Your task to perform on an android device: add a contact in the contacts app Image 0: 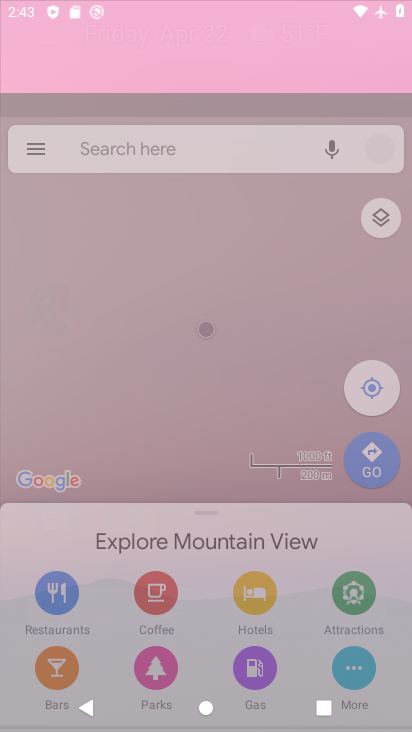
Step 0: press home button
Your task to perform on an android device: add a contact in the contacts app Image 1: 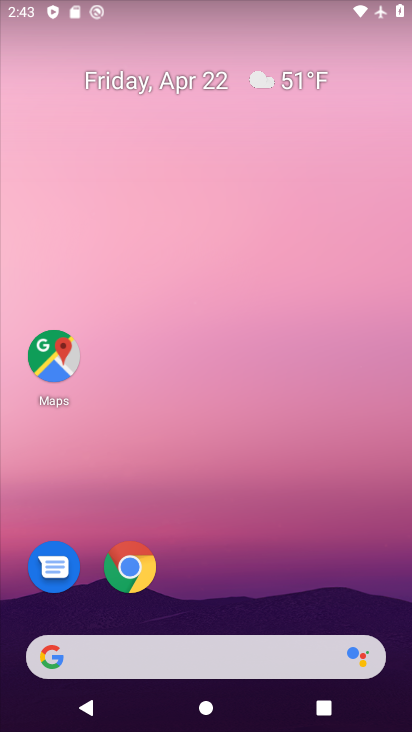
Step 1: drag from (280, 686) to (229, 52)
Your task to perform on an android device: add a contact in the contacts app Image 2: 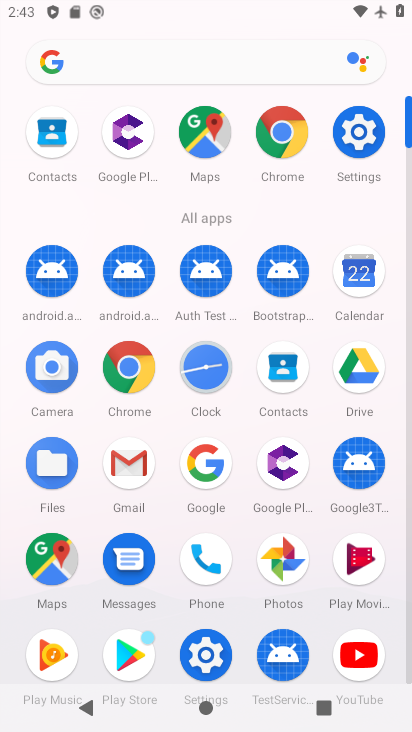
Step 2: click (285, 370)
Your task to perform on an android device: add a contact in the contacts app Image 3: 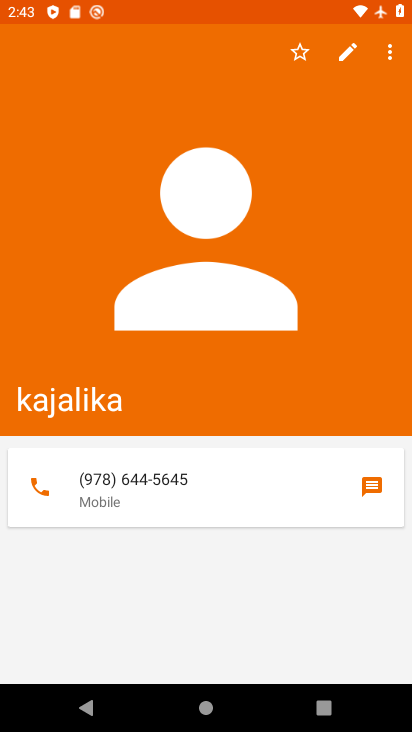
Step 3: press home button
Your task to perform on an android device: add a contact in the contacts app Image 4: 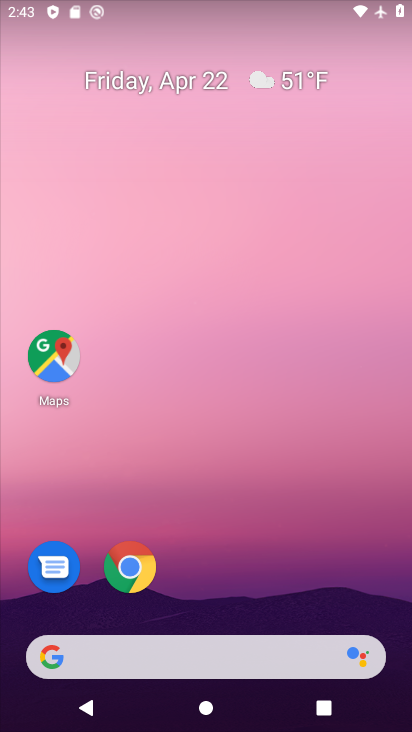
Step 4: drag from (283, 713) to (235, 87)
Your task to perform on an android device: add a contact in the contacts app Image 5: 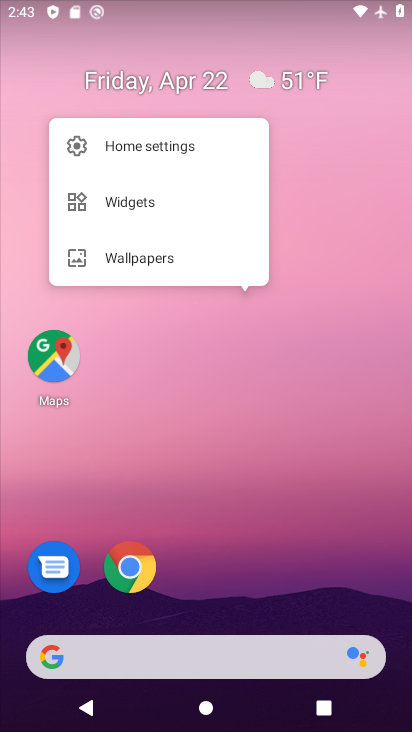
Step 5: drag from (219, 387) to (179, 211)
Your task to perform on an android device: add a contact in the contacts app Image 6: 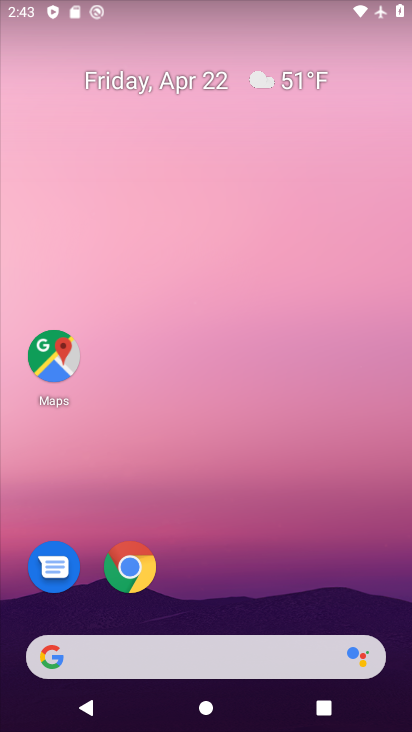
Step 6: drag from (233, 494) to (168, 152)
Your task to perform on an android device: add a contact in the contacts app Image 7: 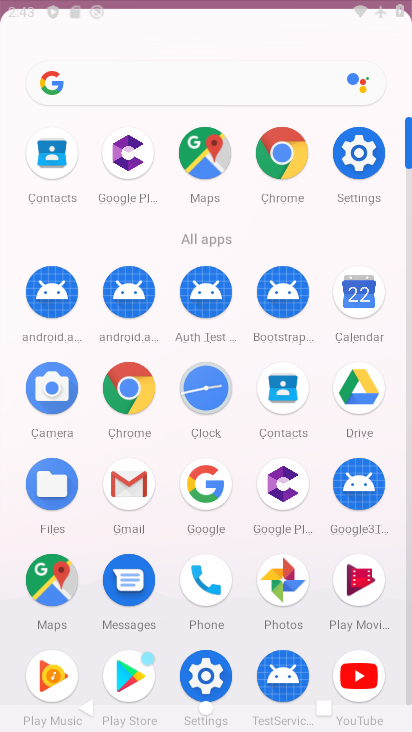
Step 7: drag from (266, 623) to (163, 124)
Your task to perform on an android device: add a contact in the contacts app Image 8: 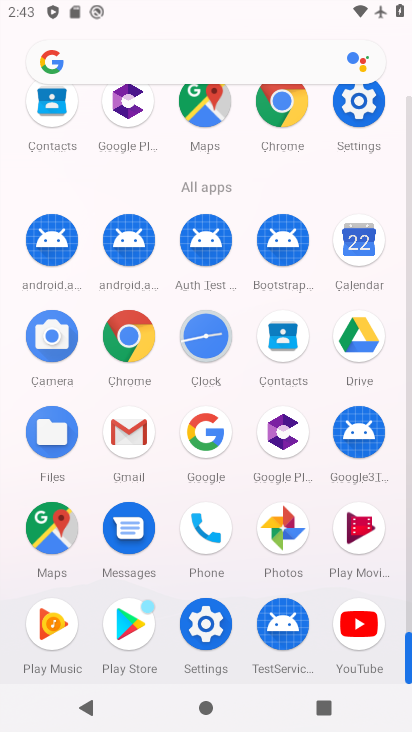
Step 8: click (285, 334)
Your task to perform on an android device: add a contact in the contacts app Image 9: 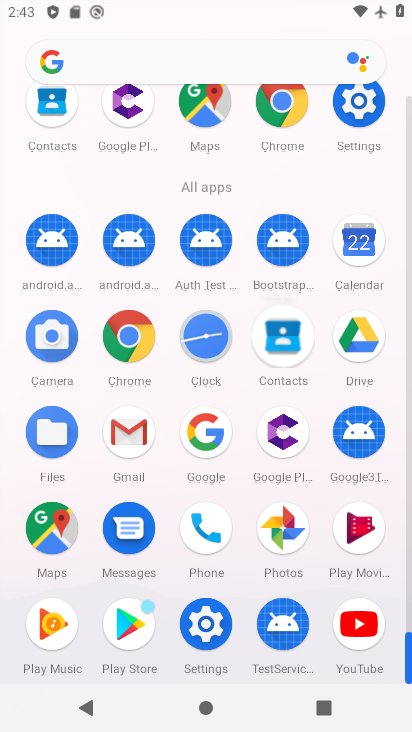
Step 9: click (285, 334)
Your task to perform on an android device: add a contact in the contacts app Image 10: 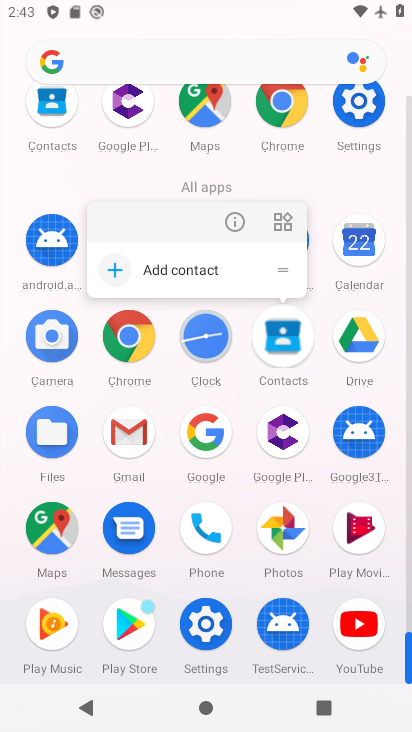
Step 10: click (285, 334)
Your task to perform on an android device: add a contact in the contacts app Image 11: 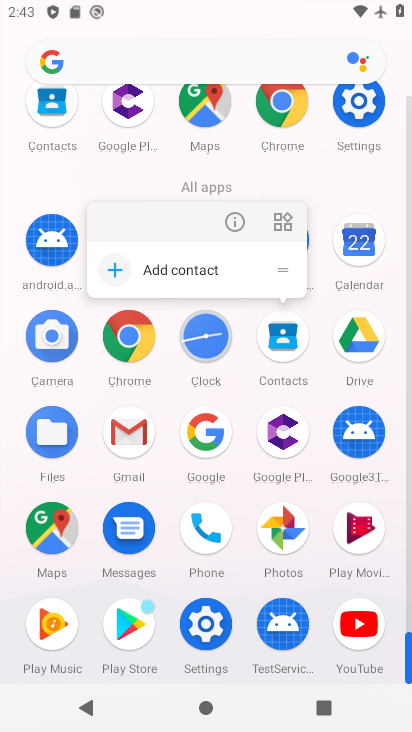
Step 11: click (282, 334)
Your task to perform on an android device: add a contact in the contacts app Image 12: 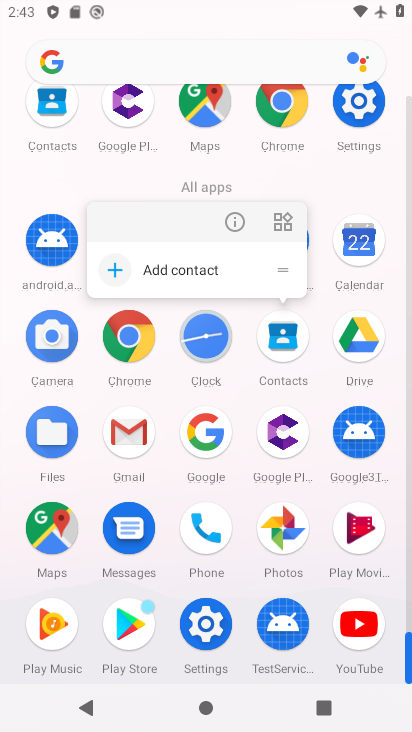
Step 12: click (285, 358)
Your task to perform on an android device: add a contact in the contacts app Image 13: 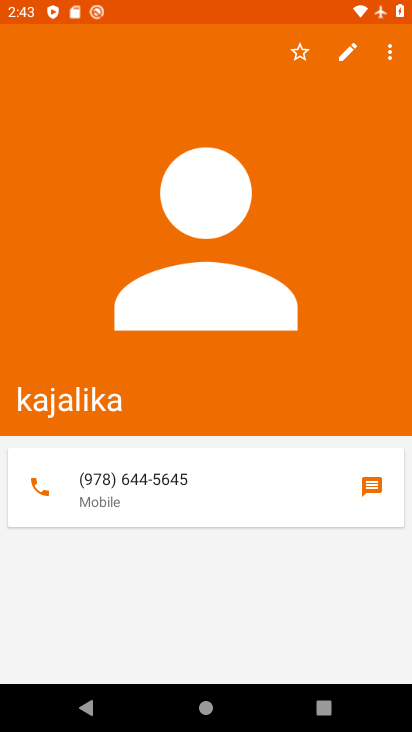
Step 13: click (386, 52)
Your task to perform on an android device: add a contact in the contacts app Image 14: 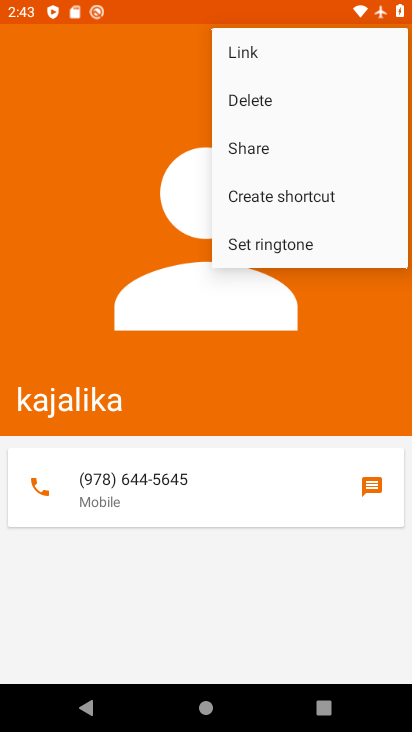
Step 14: click (105, 262)
Your task to perform on an android device: add a contact in the contacts app Image 15: 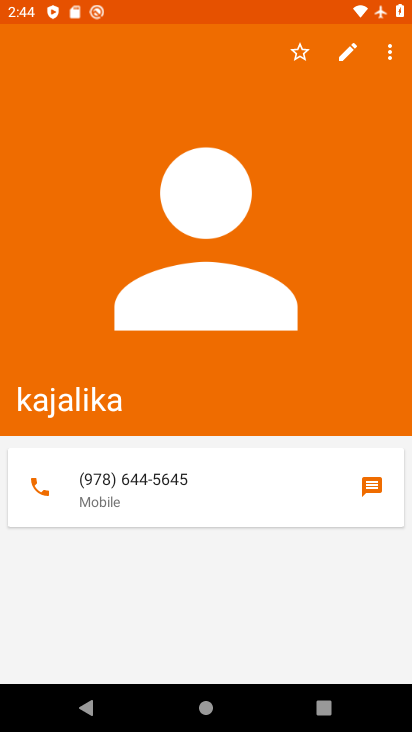
Step 15: press back button
Your task to perform on an android device: add a contact in the contacts app Image 16: 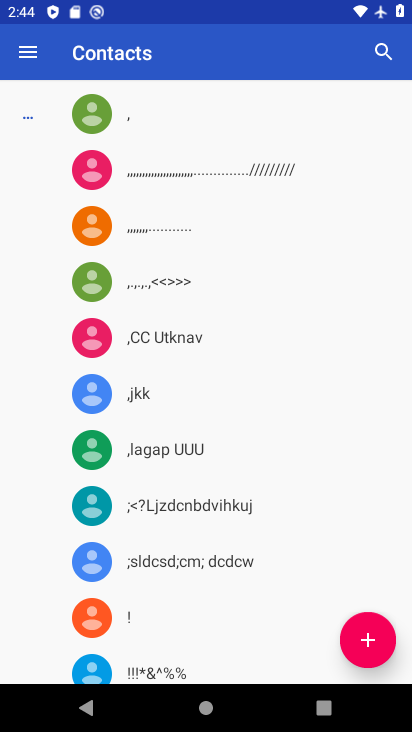
Step 16: click (365, 640)
Your task to perform on an android device: add a contact in the contacts app Image 17: 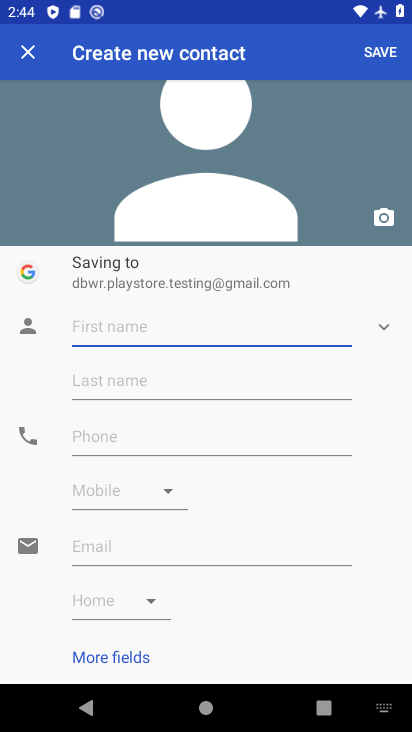
Step 17: type "sonu"
Your task to perform on an android device: add a contact in the contacts app Image 18: 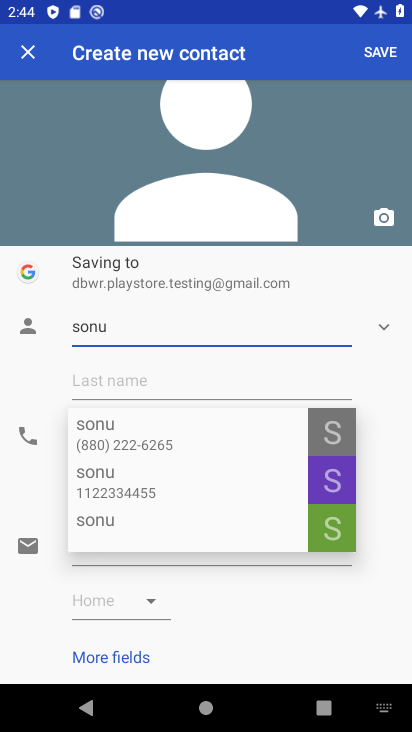
Step 18: click (35, 432)
Your task to perform on an android device: add a contact in the contacts app Image 19: 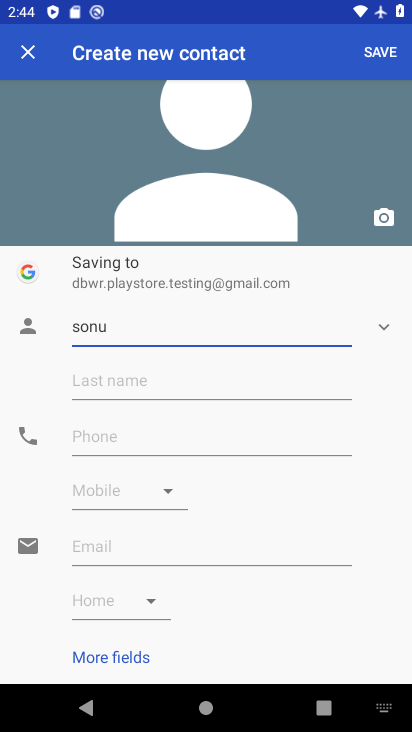
Step 19: click (114, 429)
Your task to perform on an android device: add a contact in the contacts app Image 20: 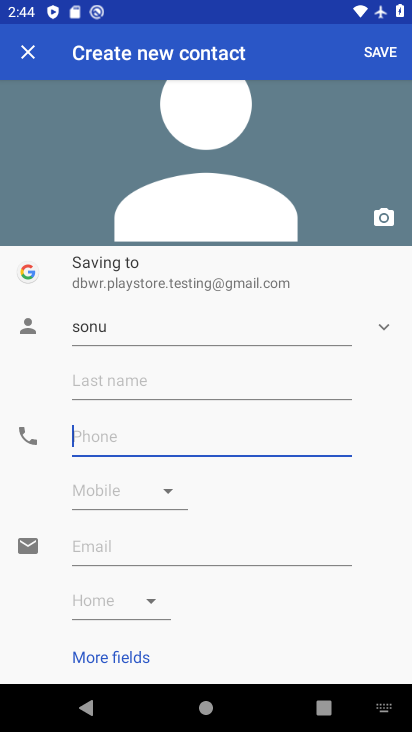
Step 20: click (114, 429)
Your task to perform on an android device: add a contact in the contacts app Image 21: 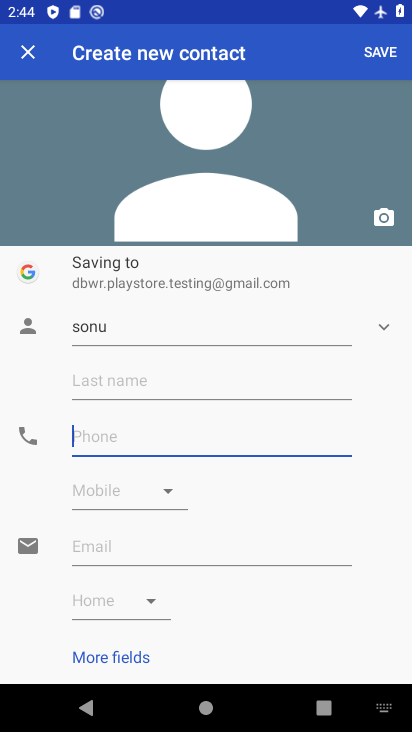
Step 21: type "9889964598"
Your task to perform on an android device: add a contact in the contacts app Image 22: 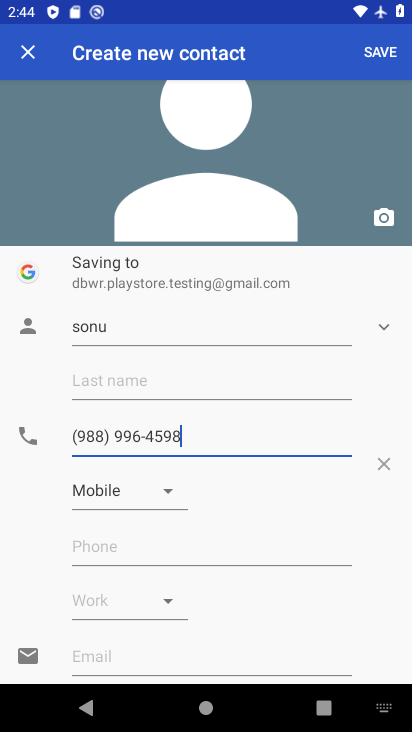
Step 22: click (386, 47)
Your task to perform on an android device: add a contact in the contacts app Image 23: 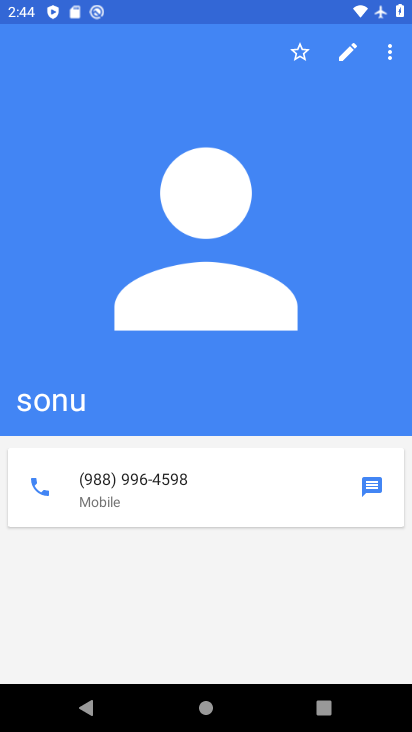
Step 23: task complete